Your task to perform on an android device: Go to notification settings Image 0: 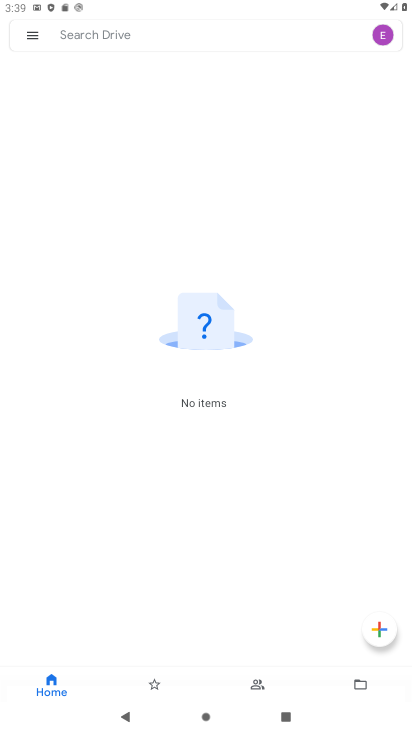
Step 0: press home button
Your task to perform on an android device: Go to notification settings Image 1: 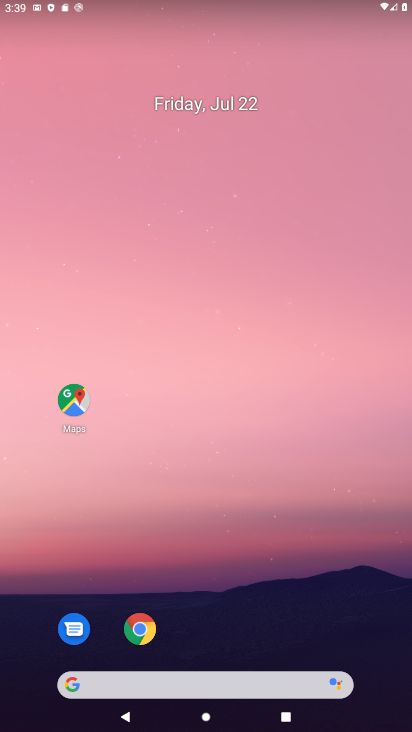
Step 1: drag from (329, 589) to (230, 113)
Your task to perform on an android device: Go to notification settings Image 2: 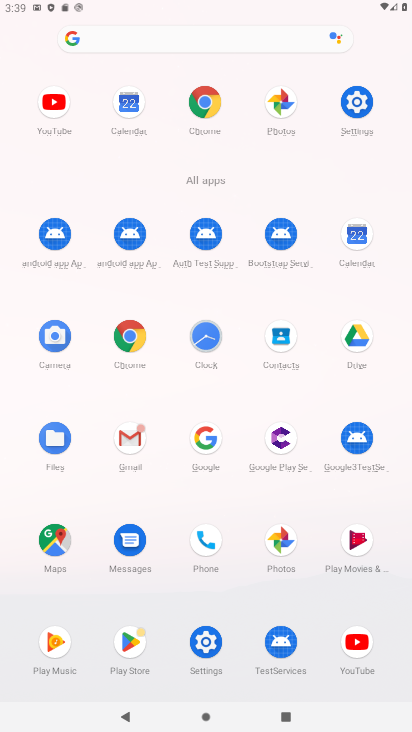
Step 2: click (358, 98)
Your task to perform on an android device: Go to notification settings Image 3: 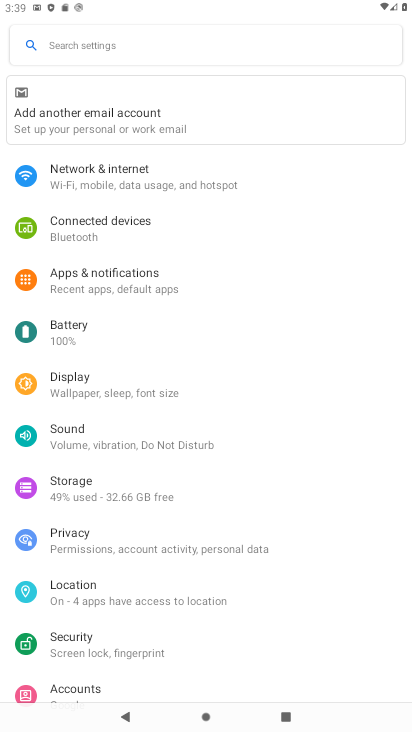
Step 3: click (154, 286)
Your task to perform on an android device: Go to notification settings Image 4: 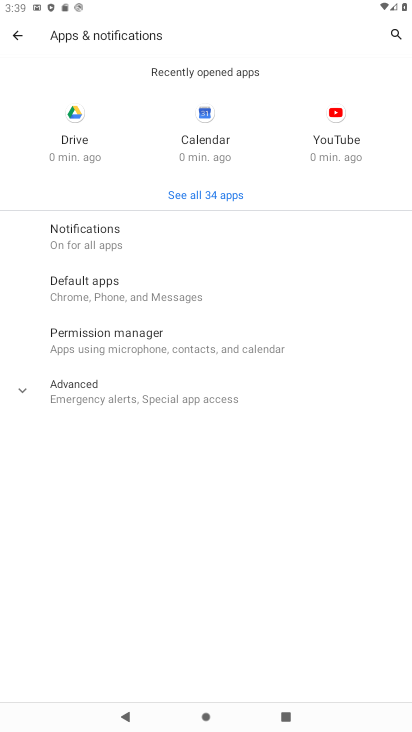
Step 4: click (95, 234)
Your task to perform on an android device: Go to notification settings Image 5: 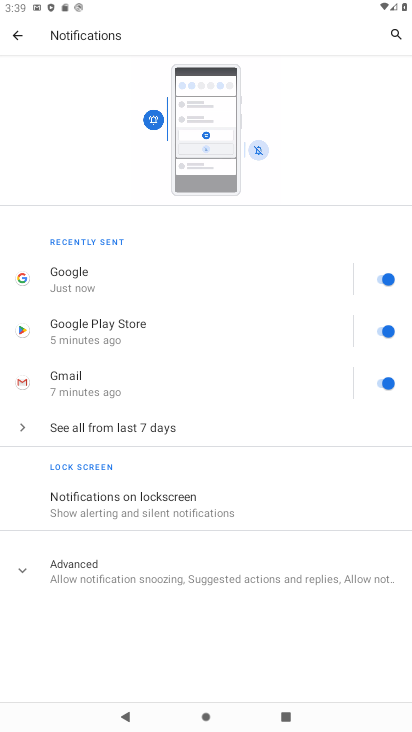
Step 5: task complete